Your task to perform on an android device: search for starred emails in the gmail app Image 0: 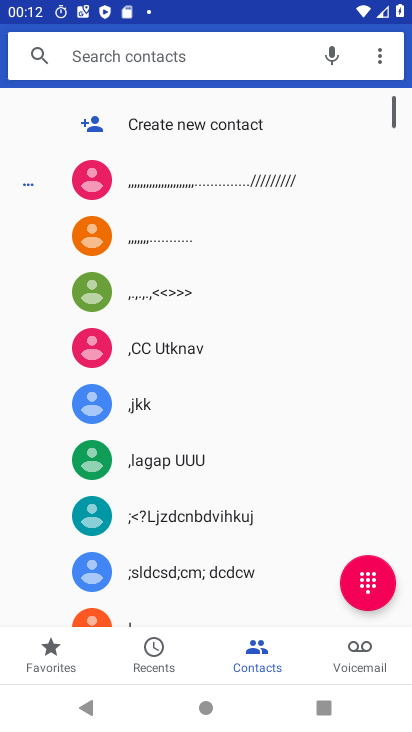
Step 0: press home button
Your task to perform on an android device: search for starred emails in the gmail app Image 1: 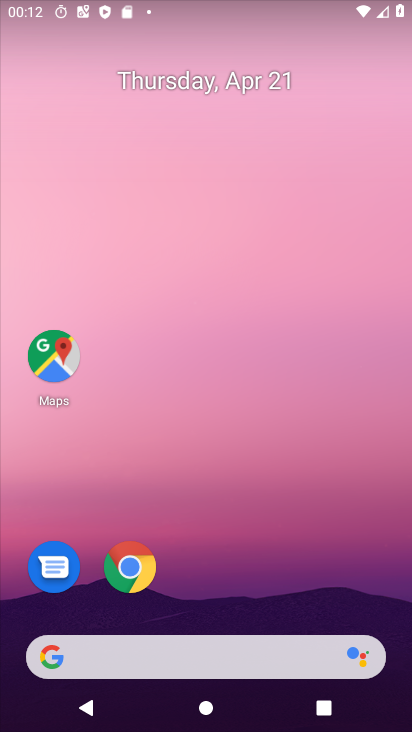
Step 1: drag from (232, 615) to (230, 218)
Your task to perform on an android device: search for starred emails in the gmail app Image 2: 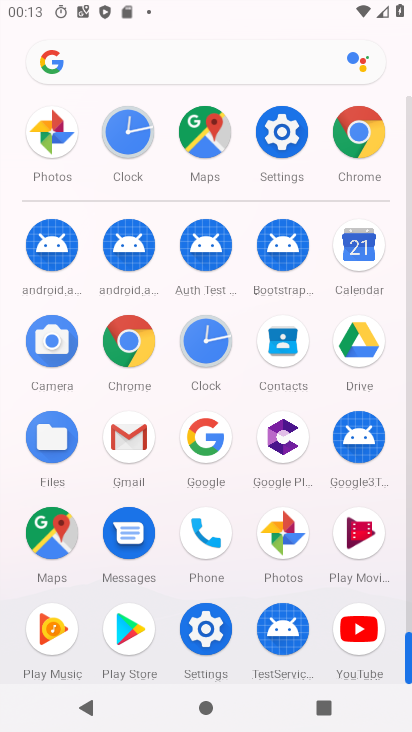
Step 2: click (132, 433)
Your task to perform on an android device: search for starred emails in the gmail app Image 3: 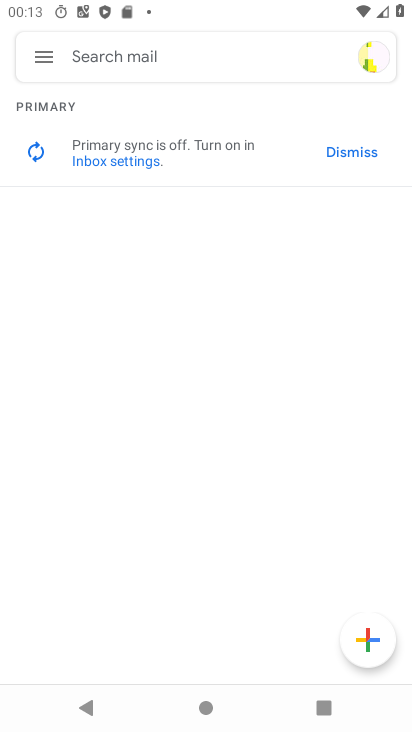
Step 3: click (48, 59)
Your task to perform on an android device: search for starred emails in the gmail app Image 4: 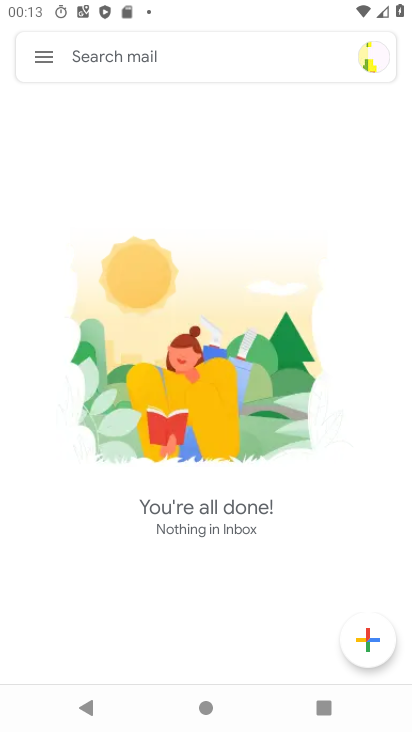
Step 4: click (46, 59)
Your task to perform on an android device: search for starred emails in the gmail app Image 5: 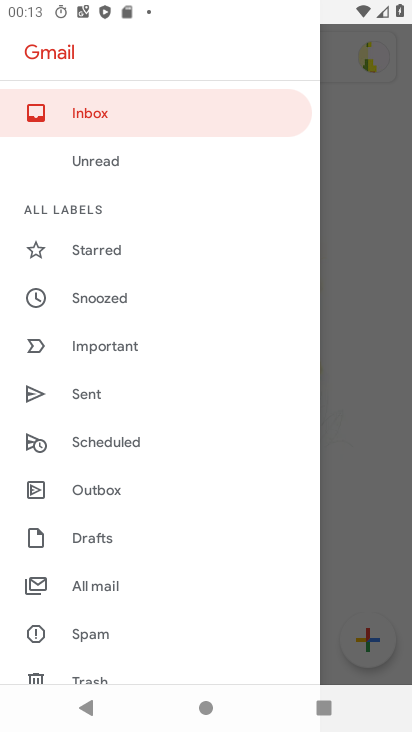
Step 5: click (127, 255)
Your task to perform on an android device: search for starred emails in the gmail app Image 6: 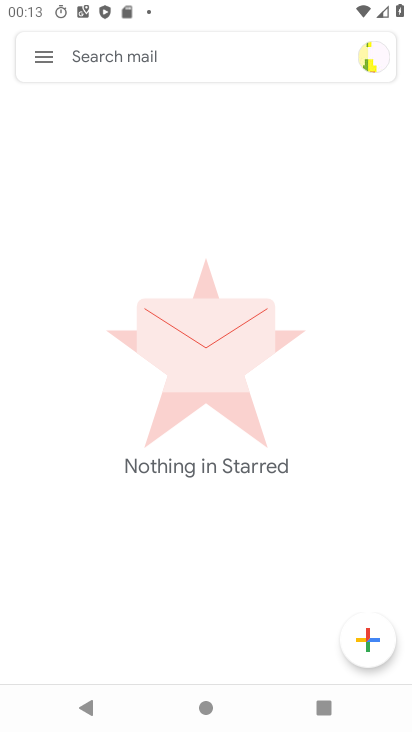
Step 6: task complete